Your task to perform on an android device: move an email to a new category in the gmail app Image 0: 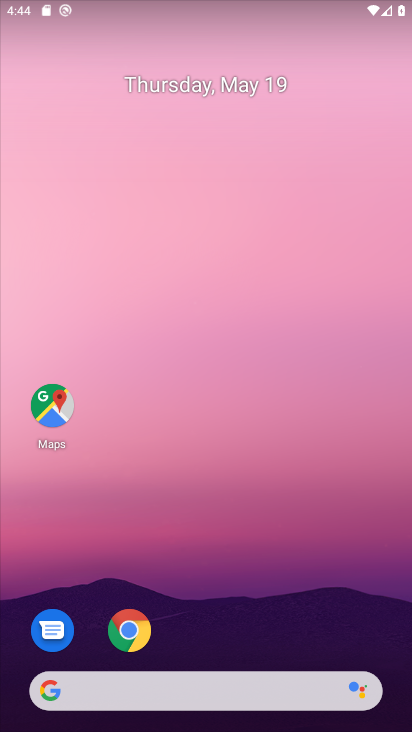
Step 0: drag from (260, 602) to (223, 43)
Your task to perform on an android device: move an email to a new category in the gmail app Image 1: 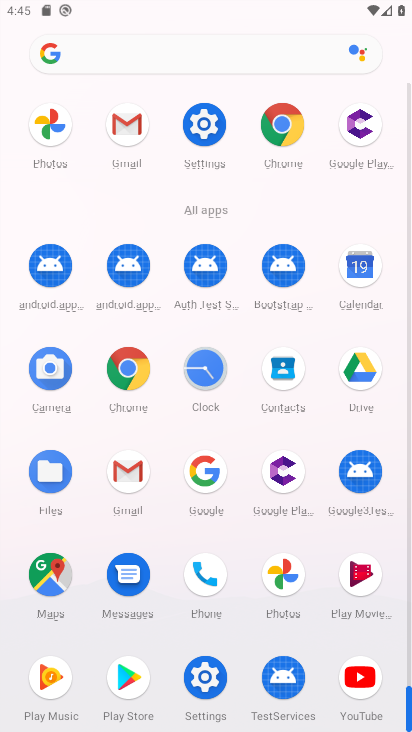
Step 1: drag from (9, 619) to (6, 248)
Your task to perform on an android device: move an email to a new category in the gmail app Image 2: 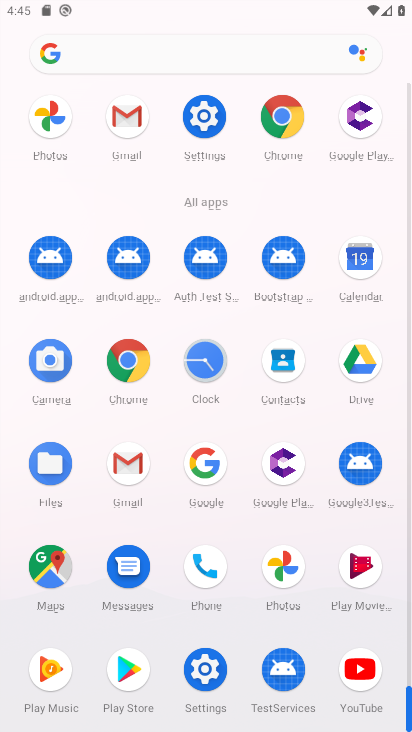
Step 2: click (125, 461)
Your task to perform on an android device: move an email to a new category in the gmail app Image 3: 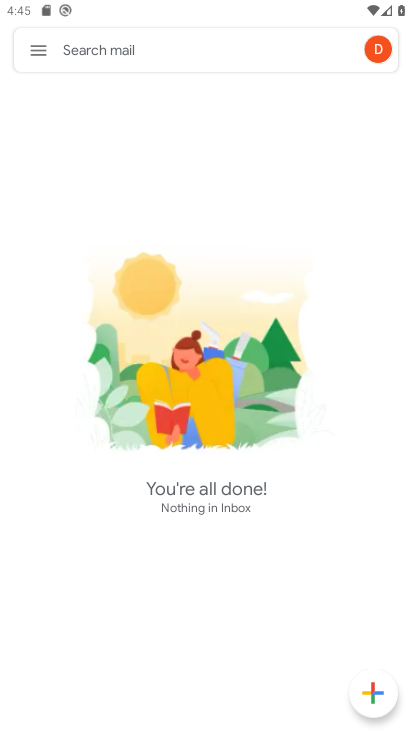
Step 3: click (21, 45)
Your task to perform on an android device: move an email to a new category in the gmail app Image 4: 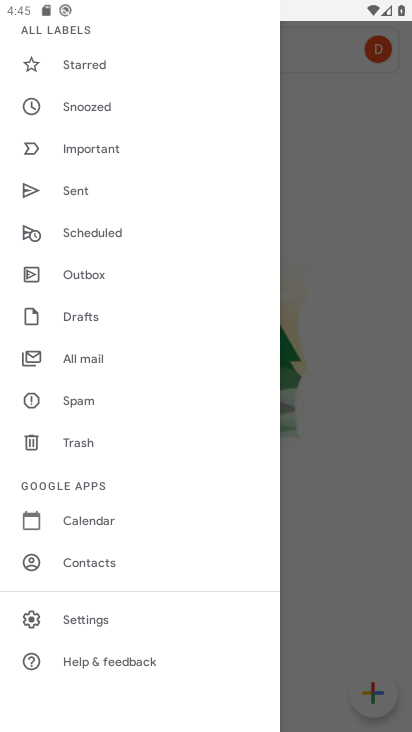
Step 4: drag from (130, 199) to (140, 513)
Your task to perform on an android device: move an email to a new category in the gmail app Image 5: 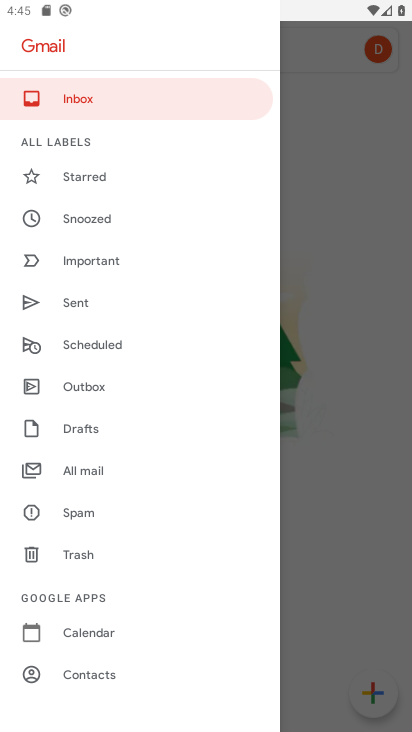
Step 5: click (72, 463)
Your task to perform on an android device: move an email to a new category in the gmail app Image 6: 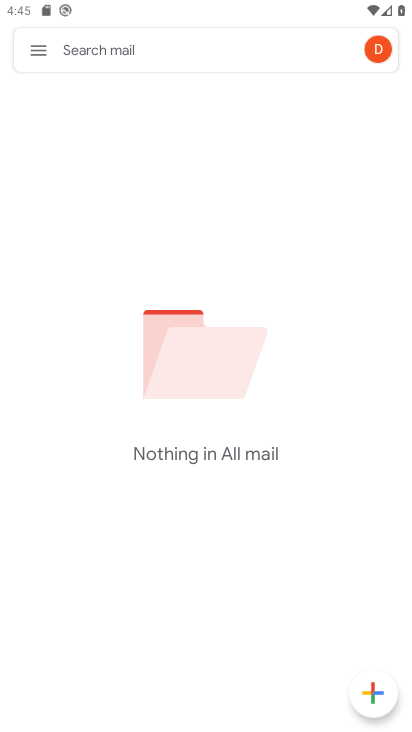
Step 6: click (35, 45)
Your task to perform on an android device: move an email to a new category in the gmail app Image 7: 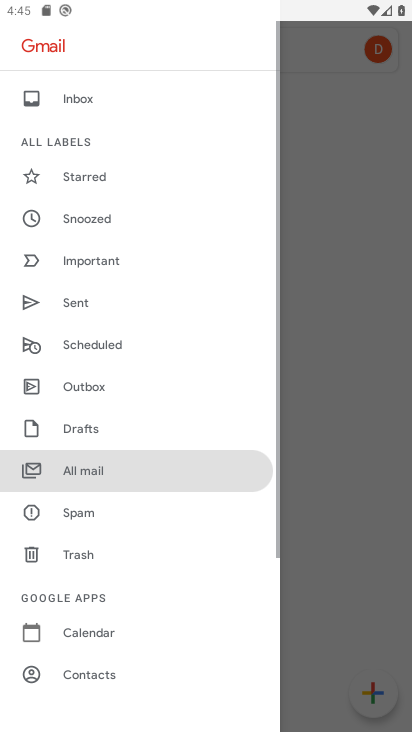
Step 7: click (114, 255)
Your task to perform on an android device: move an email to a new category in the gmail app Image 8: 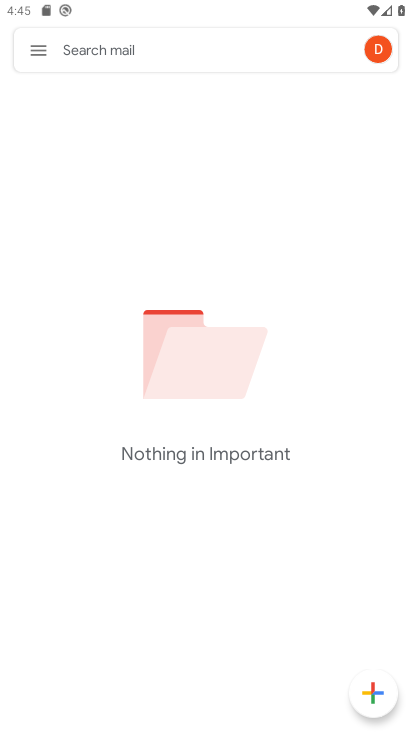
Step 8: click (45, 44)
Your task to perform on an android device: move an email to a new category in the gmail app Image 9: 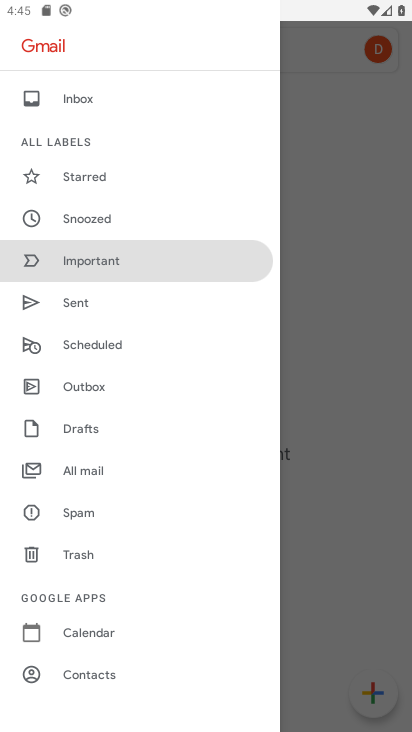
Step 9: drag from (175, 462) to (173, 534)
Your task to perform on an android device: move an email to a new category in the gmail app Image 10: 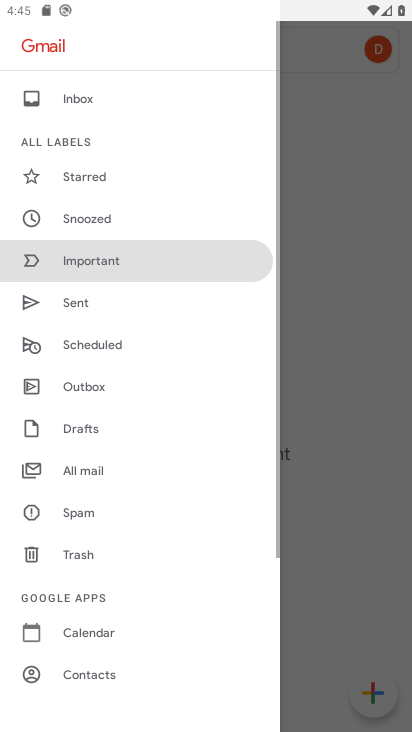
Step 10: click (94, 92)
Your task to perform on an android device: move an email to a new category in the gmail app Image 11: 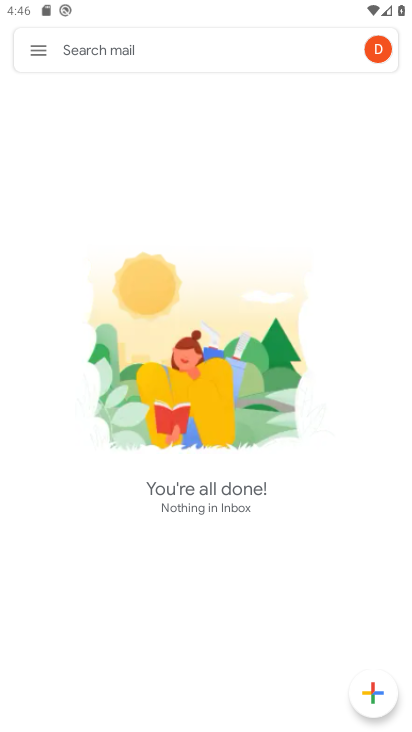
Step 11: task complete